Your task to perform on an android device: Open location settings Image 0: 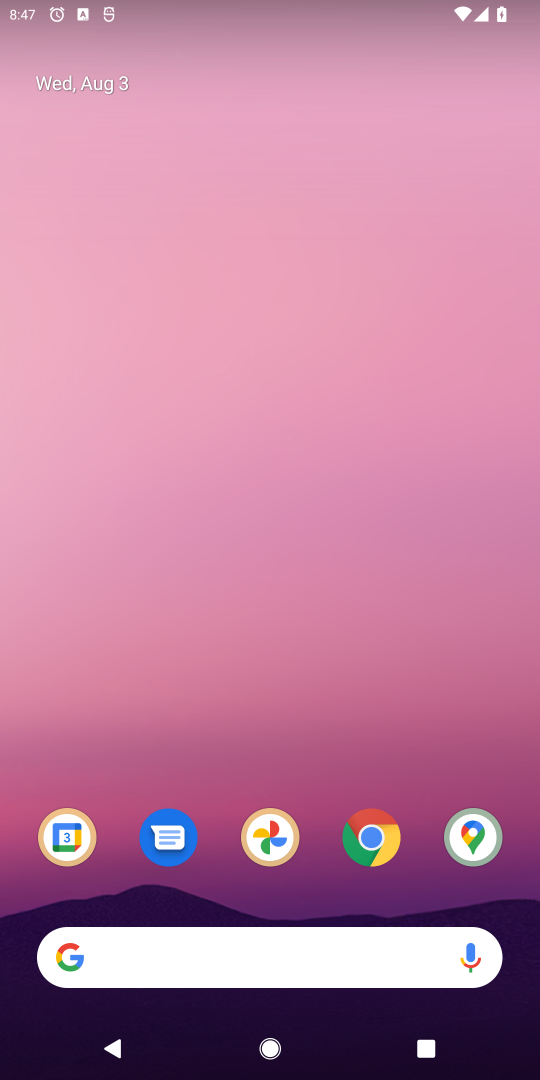
Step 0: press home button
Your task to perform on an android device: Open location settings Image 1: 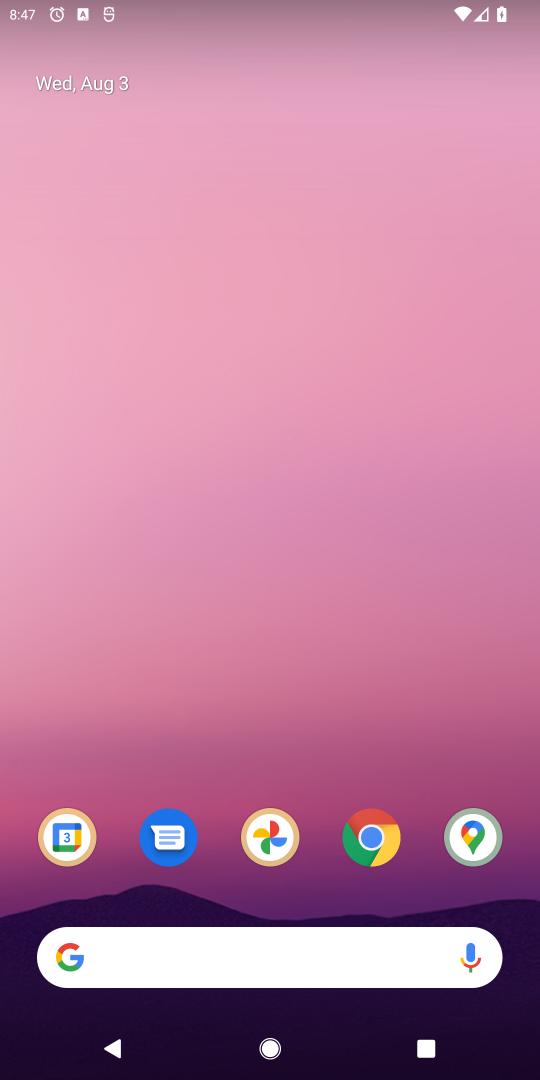
Step 1: drag from (266, 893) to (376, 417)
Your task to perform on an android device: Open location settings Image 2: 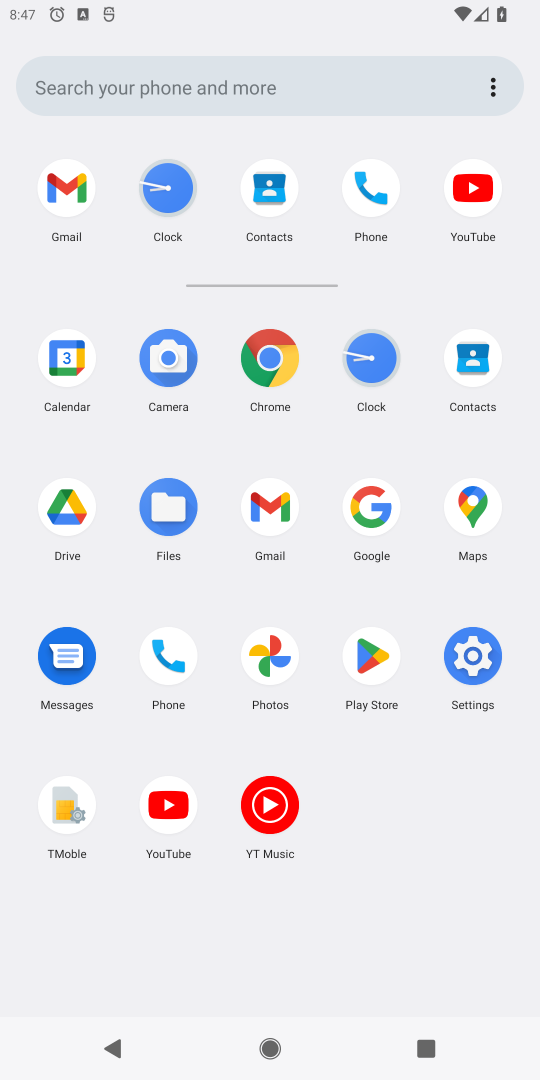
Step 2: click (461, 661)
Your task to perform on an android device: Open location settings Image 3: 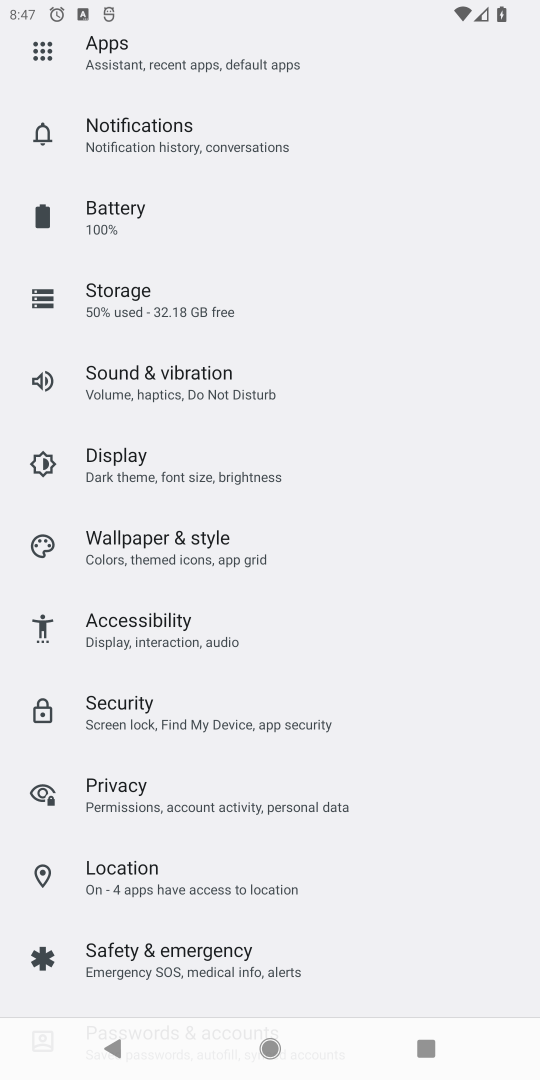
Step 3: click (140, 894)
Your task to perform on an android device: Open location settings Image 4: 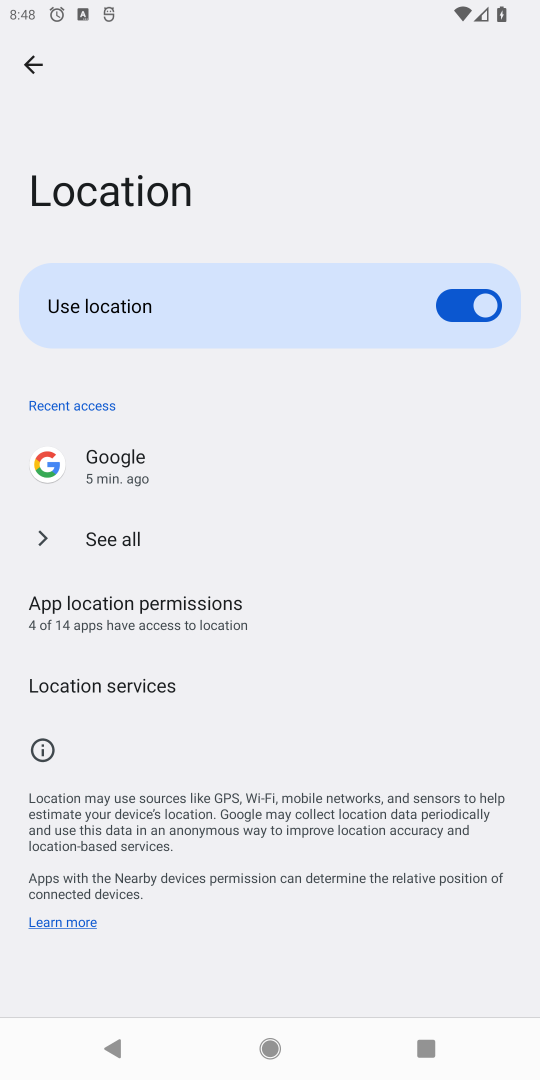
Step 4: task complete